Your task to perform on an android device: toggle notifications settings in the gmail app Image 0: 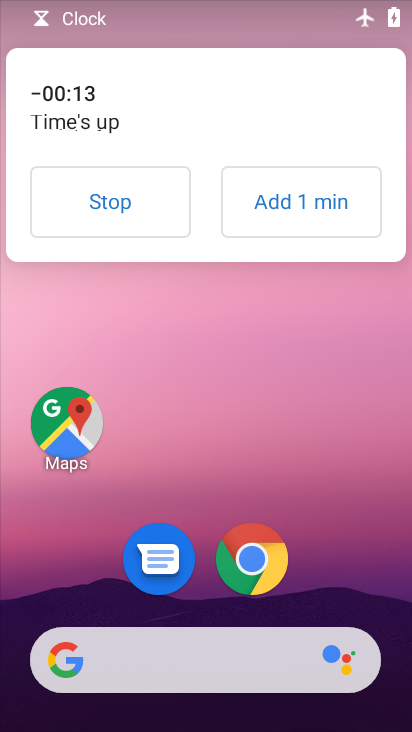
Step 0: drag from (207, 607) to (200, 197)
Your task to perform on an android device: toggle notifications settings in the gmail app Image 1: 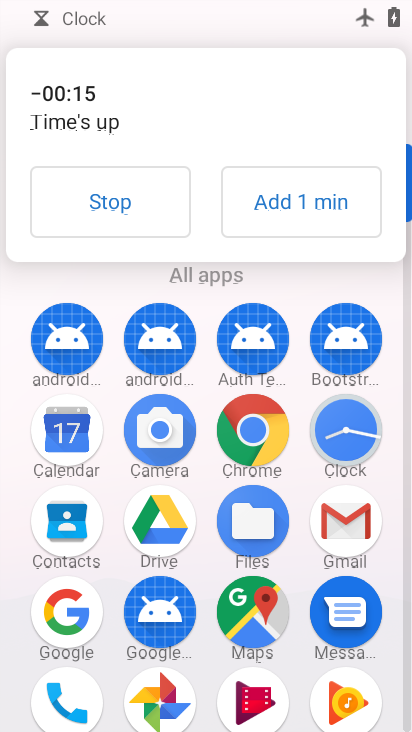
Step 1: click (333, 523)
Your task to perform on an android device: toggle notifications settings in the gmail app Image 2: 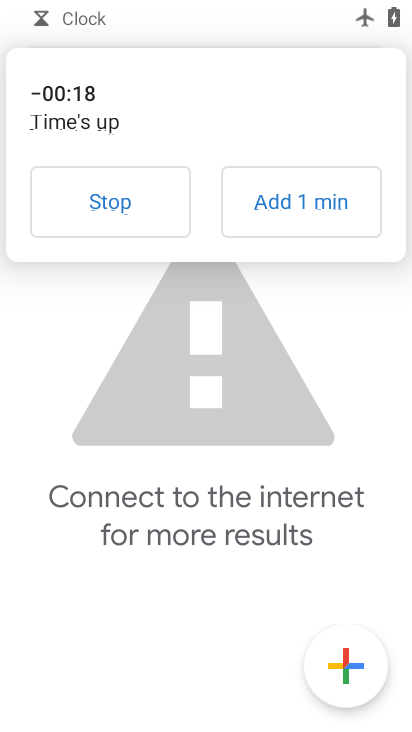
Step 2: click (97, 216)
Your task to perform on an android device: toggle notifications settings in the gmail app Image 3: 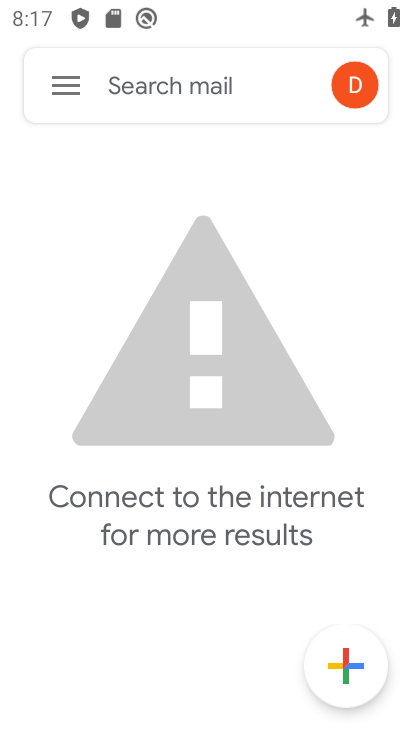
Step 3: click (57, 77)
Your task to perform on an android device: toggle notifications settings in the gmail app Image 4: 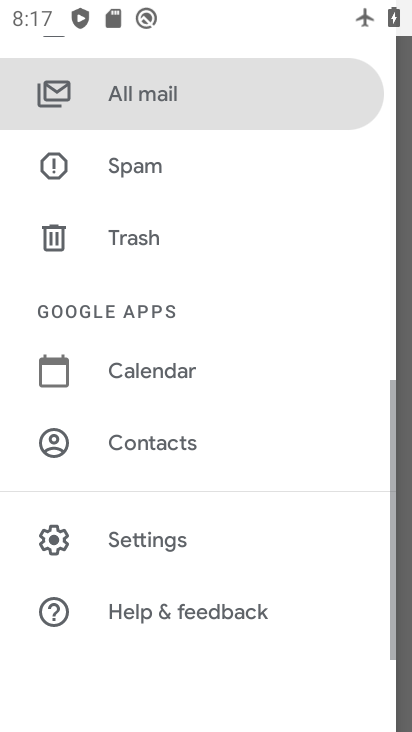
Step 4: click (153, 539)
Your task to perform on an android device: toggle notifications settings in the gmail app Image 5: 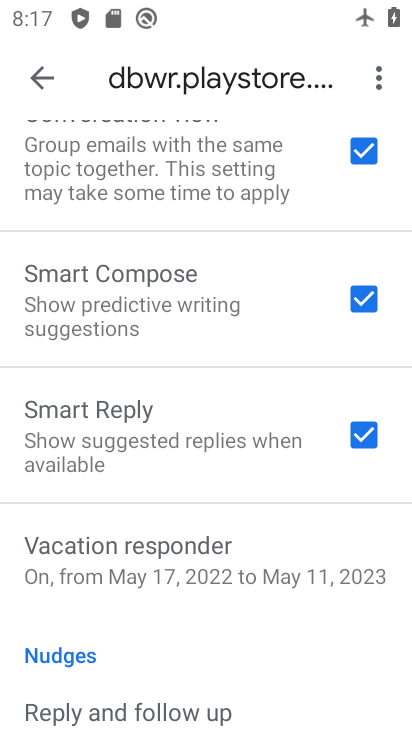
Step 5: drag from (153, 269) to (179, 640)
Your task to perform on an android device: toggle notifications settings in the gmail app Image 6: 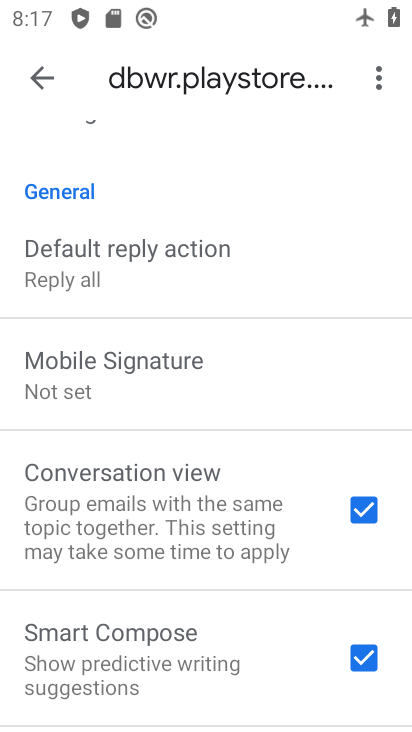
Step 6: drag from (147, 296) to (161, 593)
Your task to perform on an android device: toggle notifications settings in the gmail app Image 7: 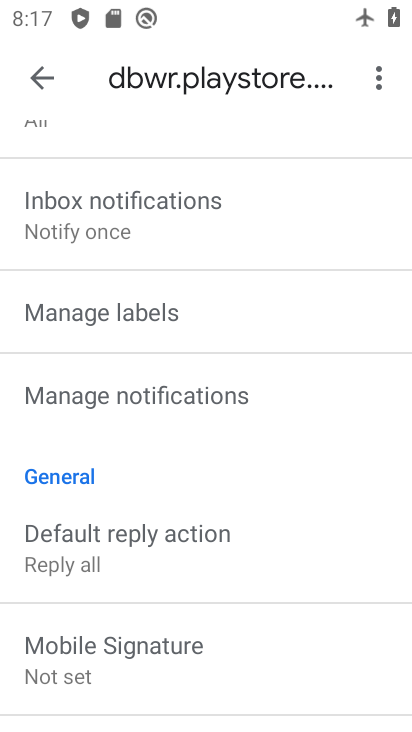
Step 7: click (182, 398)
Your task to perform on an android device: toggle notifications settings in the gmail app Image 8: 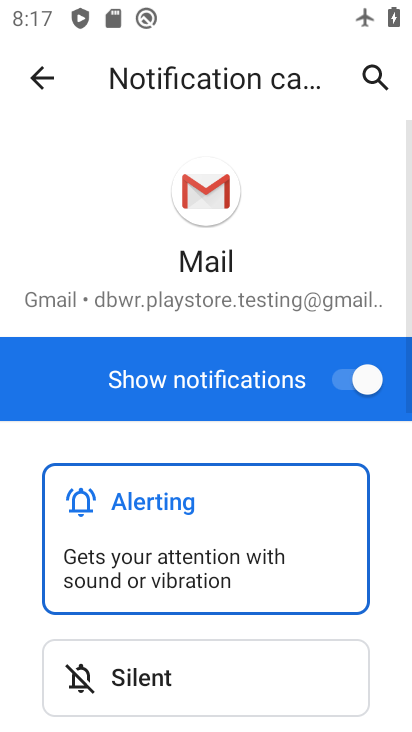
Step 8: click (344, 375)
Your task to perform on an android device: toggle notifications settings in the gmail app Image 9: 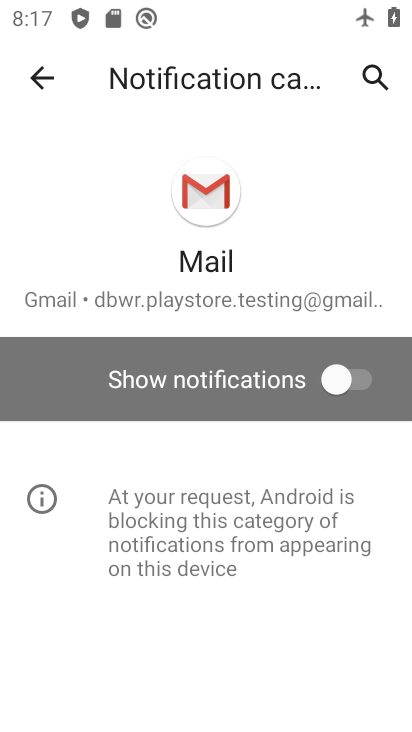
Step 9: task complete